Your task to perform on an android device: Show me popular games on the Play Store Image 0: 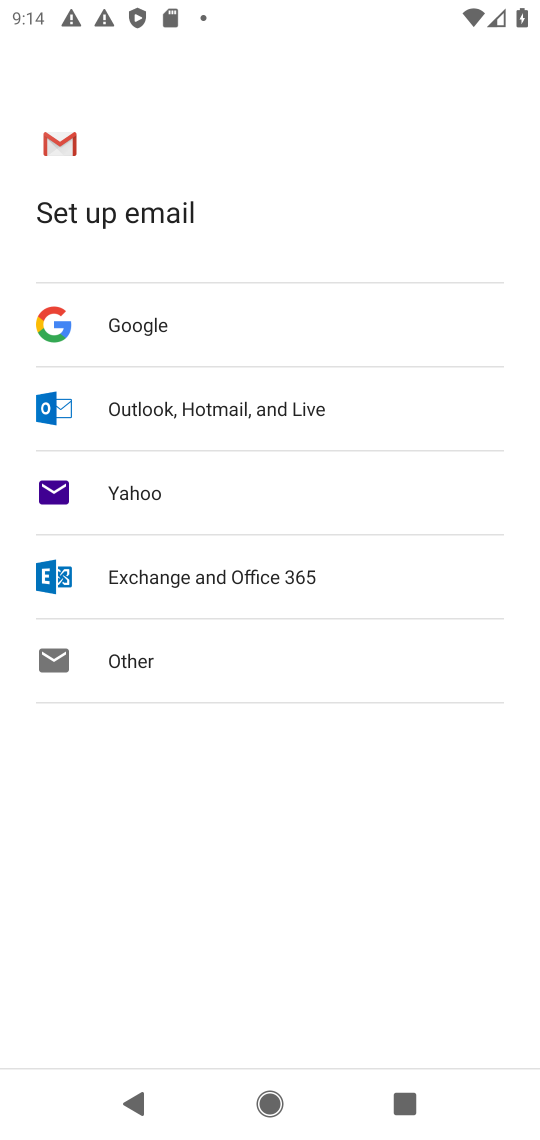
Step 0: press home button
Your task to perform on an android device: Show me popular games on the Play Store Image 1: 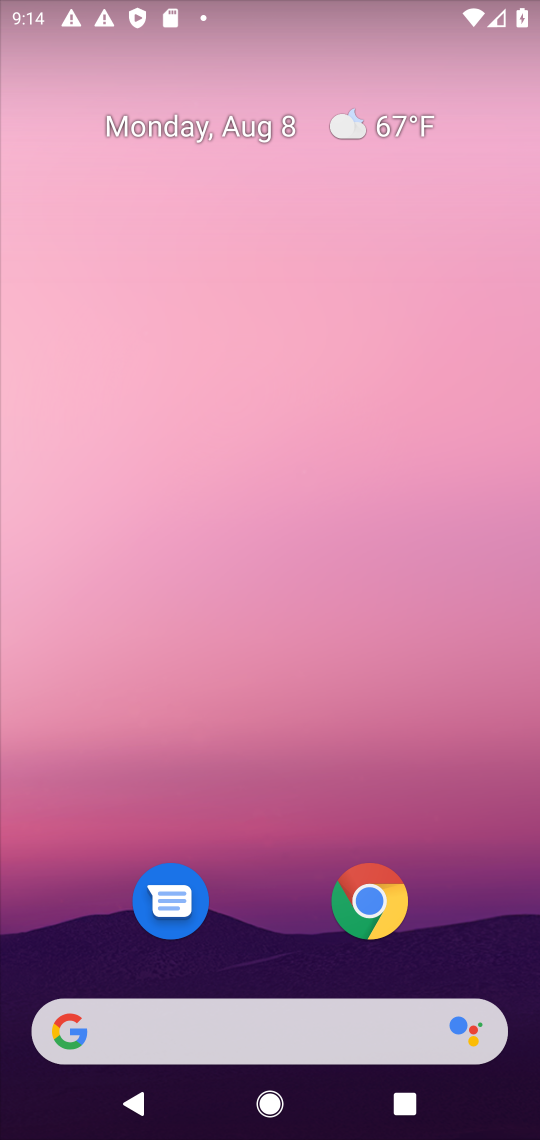
Step 1: drag from (224, 848) to (222, 456)
Your task to perform on an android device: Show me popular games on the Play Store Image 2: 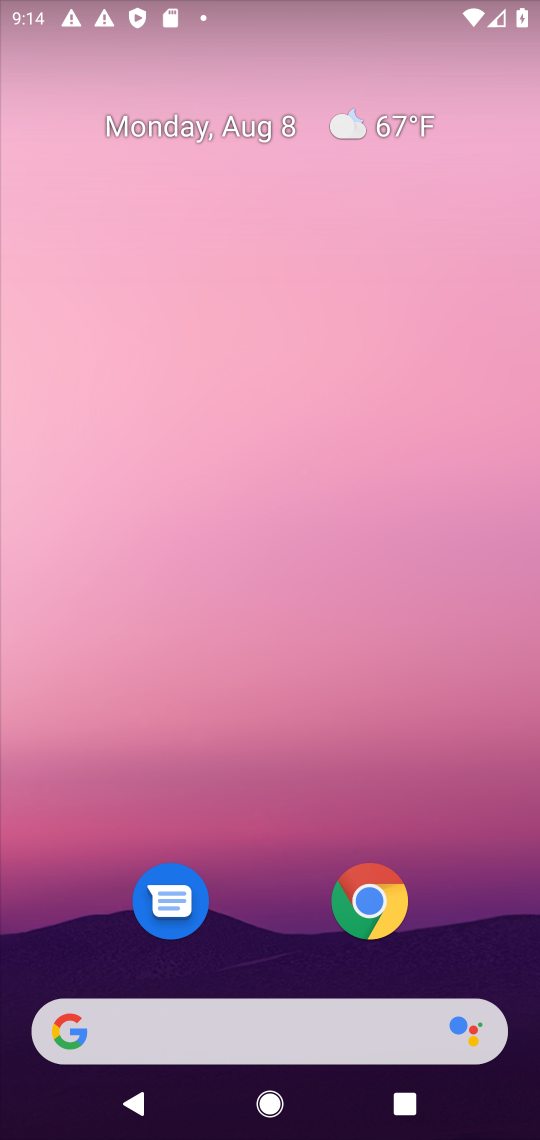
Step 2: drag from (238, 663) to (240, 45)
Your task to perform on an android device: Show me popular games on the Play Store Image 3: 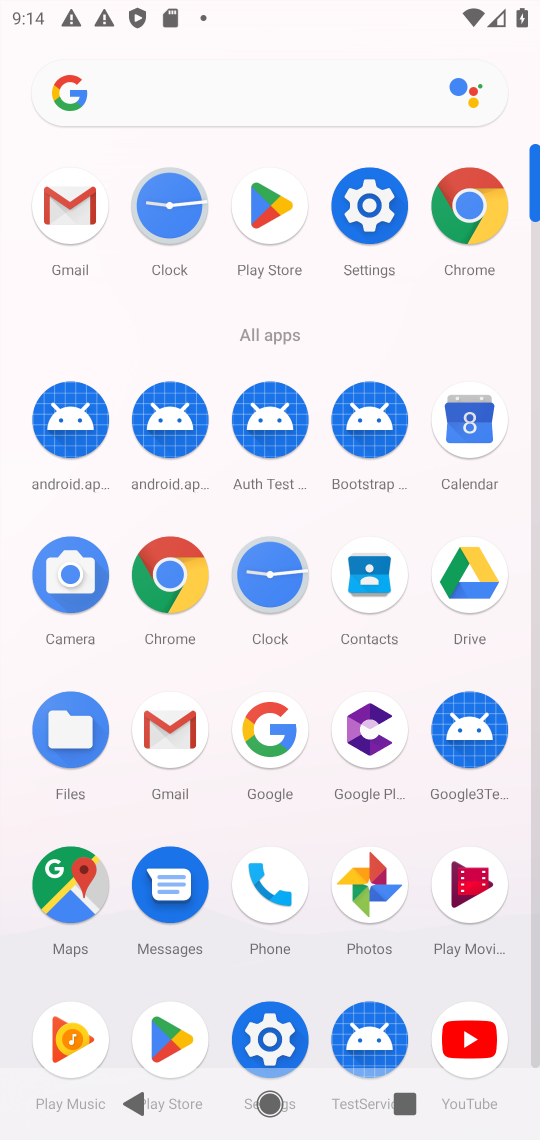
Step 3: click (165, 1027)
Your task to perform on an android device: Show me popular games on the Play Store Image 4: 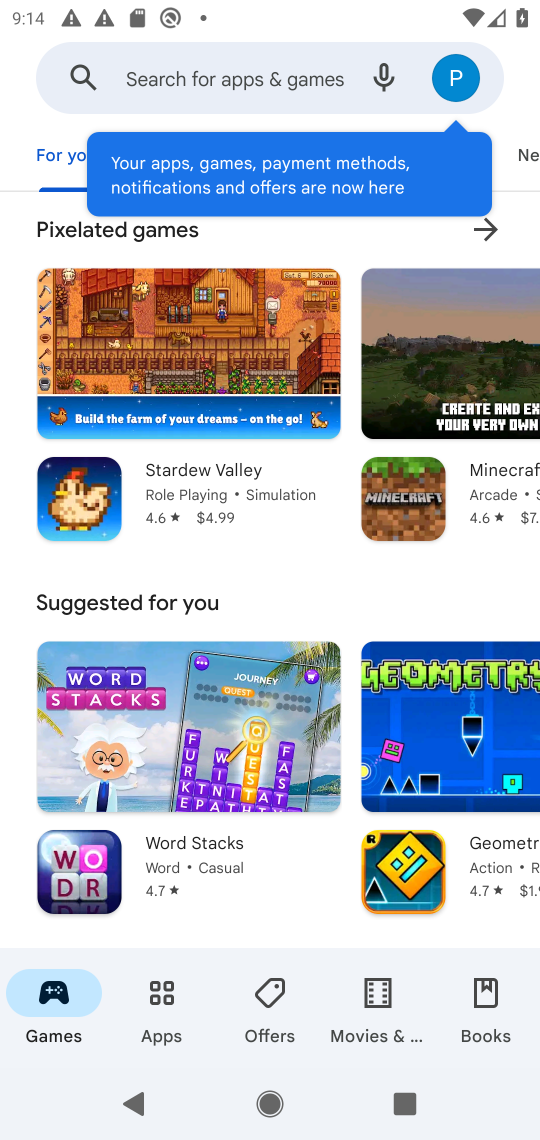
Step 4: task complete